Your task to perform on an android device: Open calendar and show me the second week of next month Image 0: 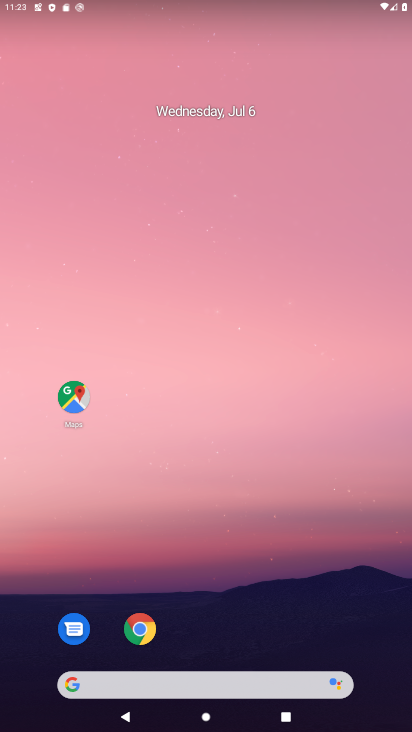
Step 0: press home button
Your task to perform on an android device: Open calendar and show me the second week of next month Image 1: 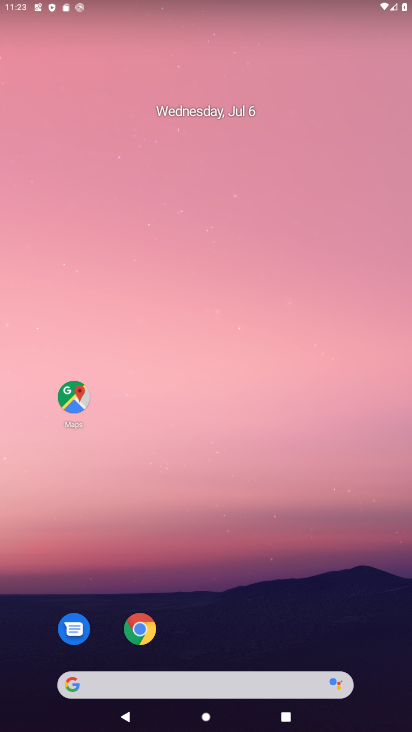
Step 1: drag from (297, 601) to (206, 178)
Your task to perform on an android device: Open calendar and show me the second week of next month Image 2: 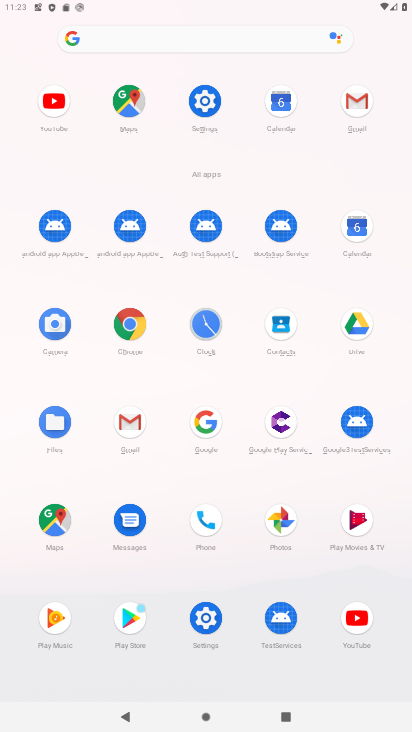
Step 2: click (280, 102)
Your task to perform on an android device: Open calendar and show me the second week of next month Image 3: 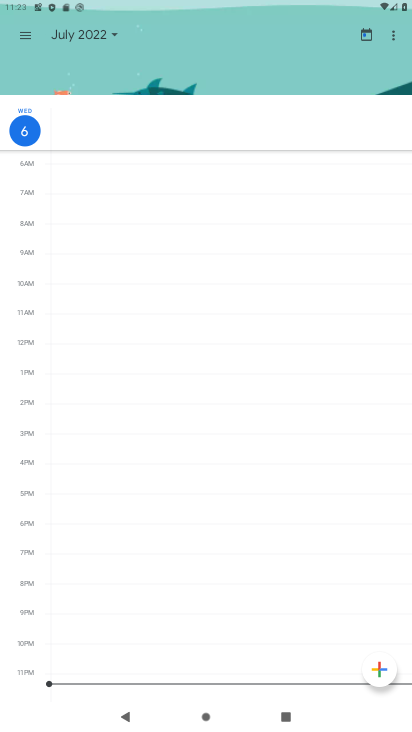
Step 3: click (370, 40)
Your task to perform on an android device: Open calendar and show me the second week of next month Image 4: 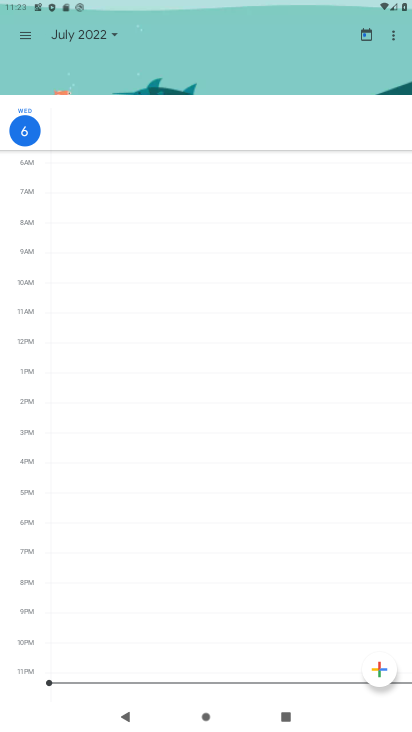
Step 4: click (21, 33)
Your task to perform on an android device: Open calendar and show me the second week of next month Image 5: 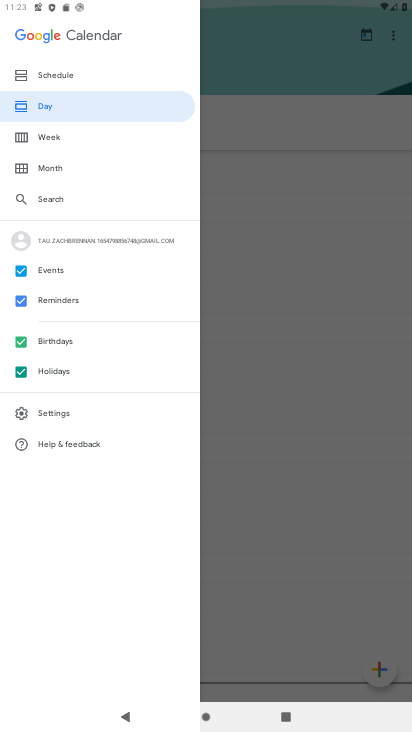
Step 5: click (49, 76)
Your task to perform on an android device: Open calendar and show me the second week of next month Image 6: 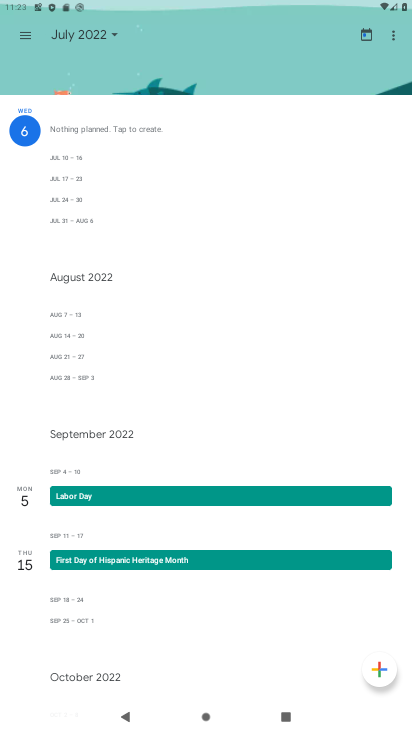
Step 6: click (115, 36)
Your task to perform on an android device: Open calendar and show me the second week of next month Image 7: 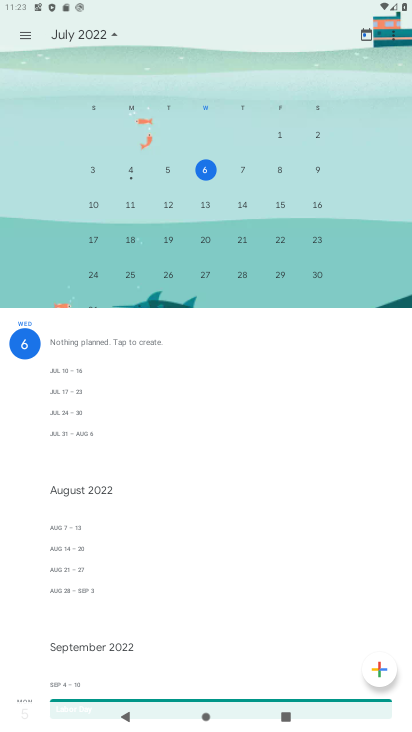
Step 7: drag from (357, 219) to (51, 245)
Your task to perform on an android device: Open calendar and show me the second week of next month Image 8: 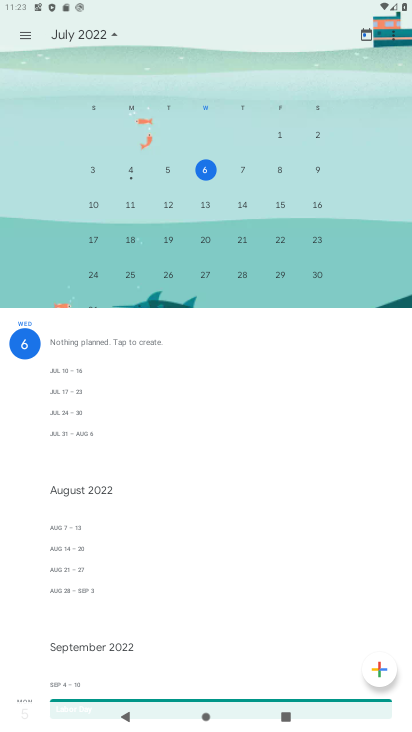
Step 8: drag from (367, 197) to (0, 242)
Your task to perform on an android device: Open calendar and show me the second week of next month Image 9: 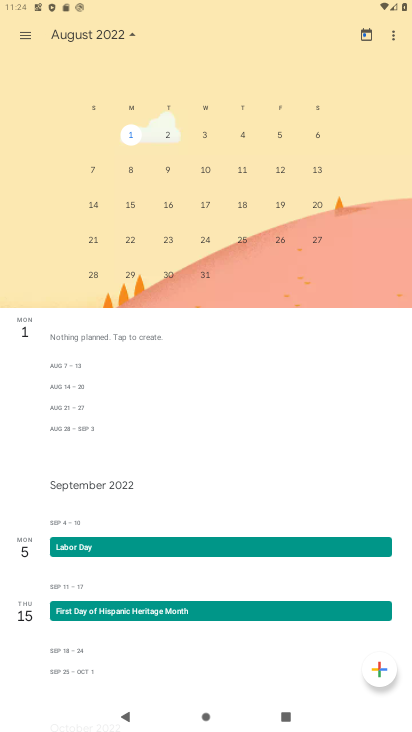
Step 9: click (134, 165)
Your task to perform on an android device: Open calendar and show me the second week of next month Image 10: 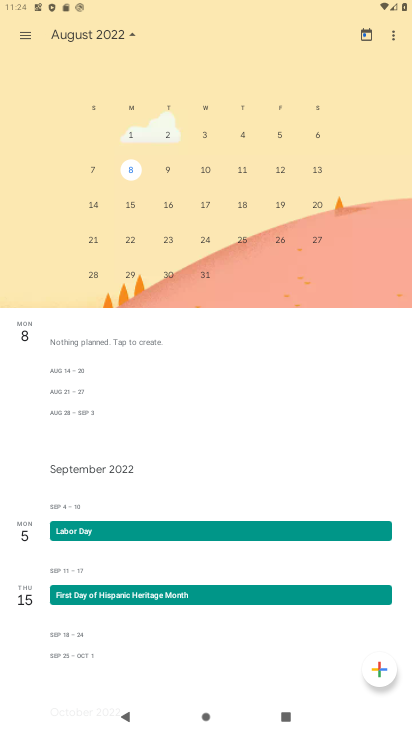
Step 10: click (22, 25)
Your task to perform on an android device: Open calendar and show me the second week of next month Image 11: 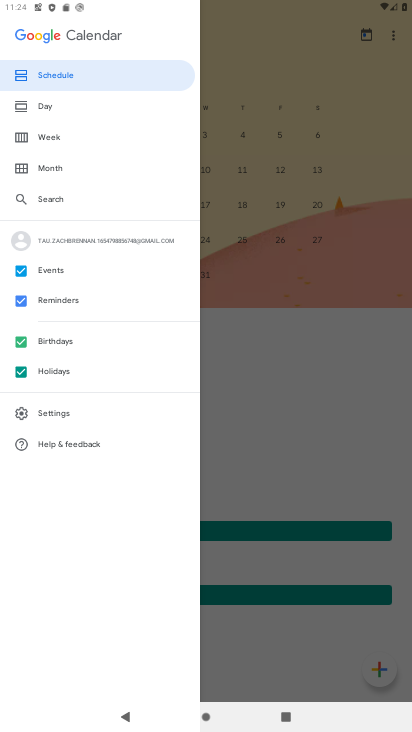
Step 11: click (61, 137)
Your task to perform on an android device: Open calendar and show me the second week of next month Image 12: 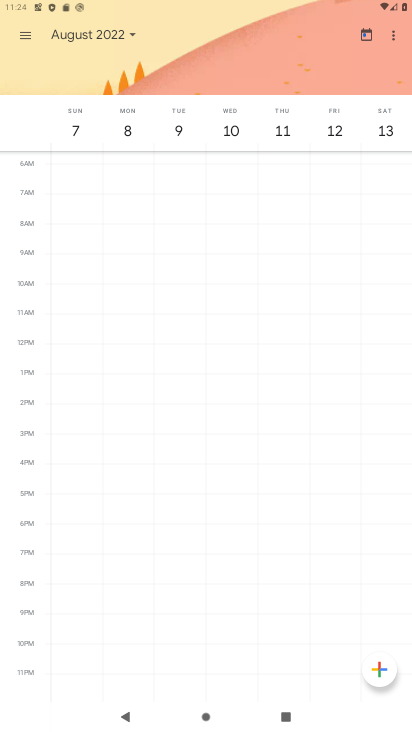
Step 12: task complete